Your task to perform on an android device: Go to privacy settings Image 0: 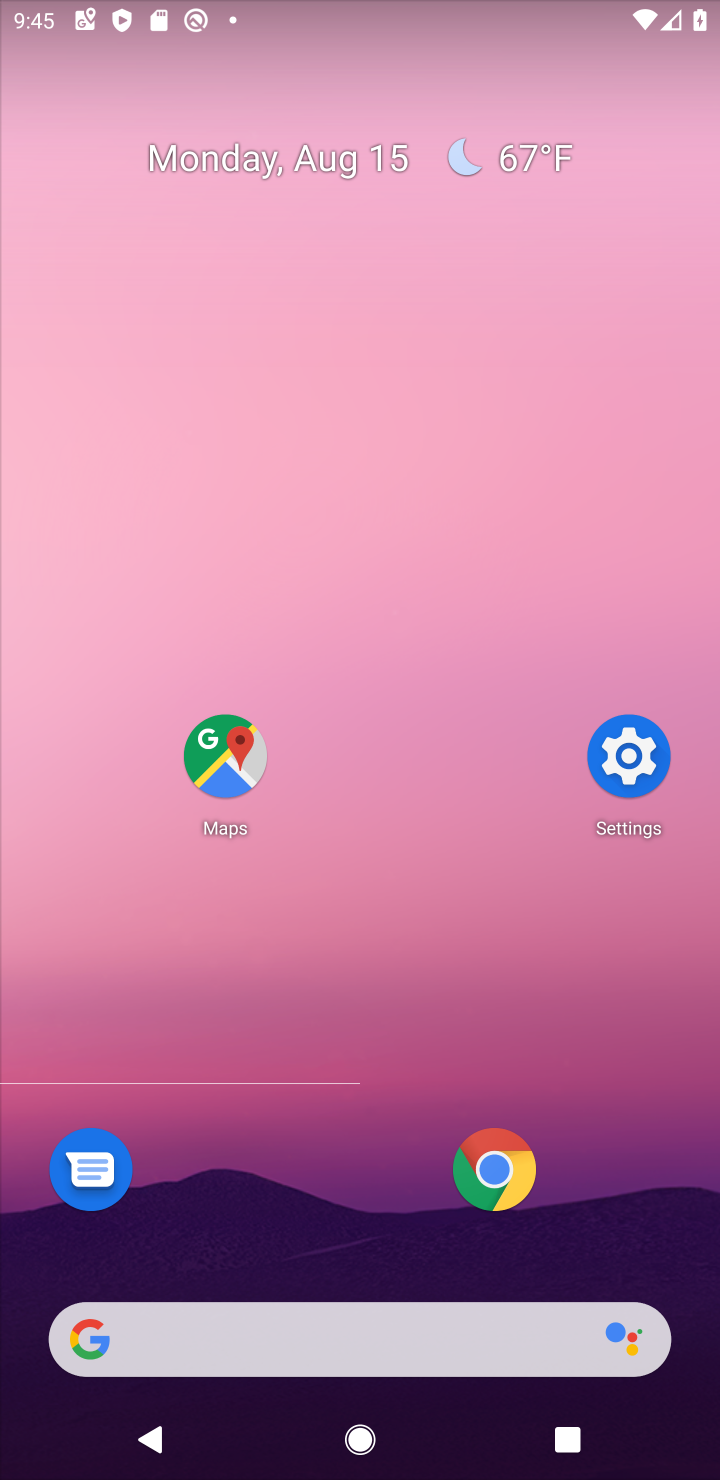
Step 0: press home button
Your task to perform on an android device: Go to privacy settings Image 1: 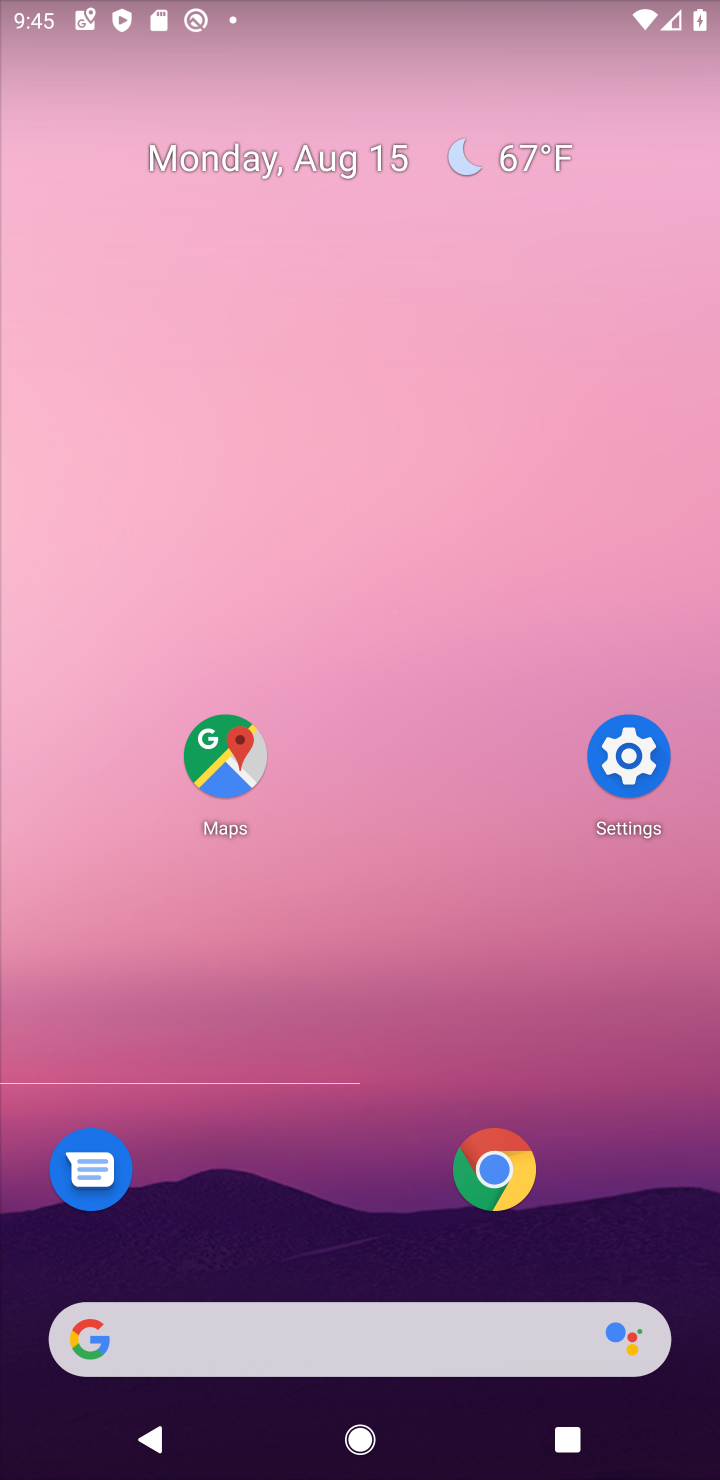
Step 1: click (633, 767)
Your task to perform on an android device: Go to privacy settings Image 2: 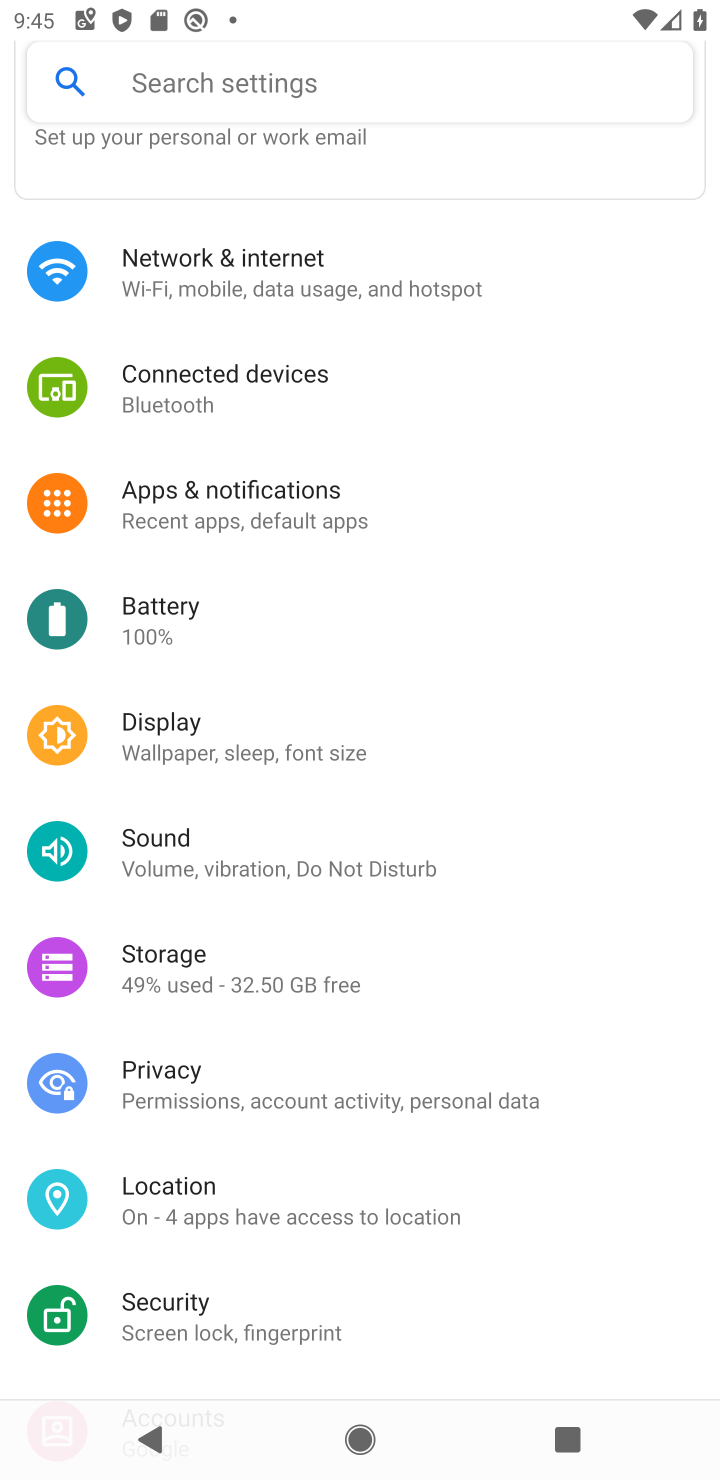
Step 2: click (220, 1074)
Your task to perform on an android device: Go to privacy settings Image 3: 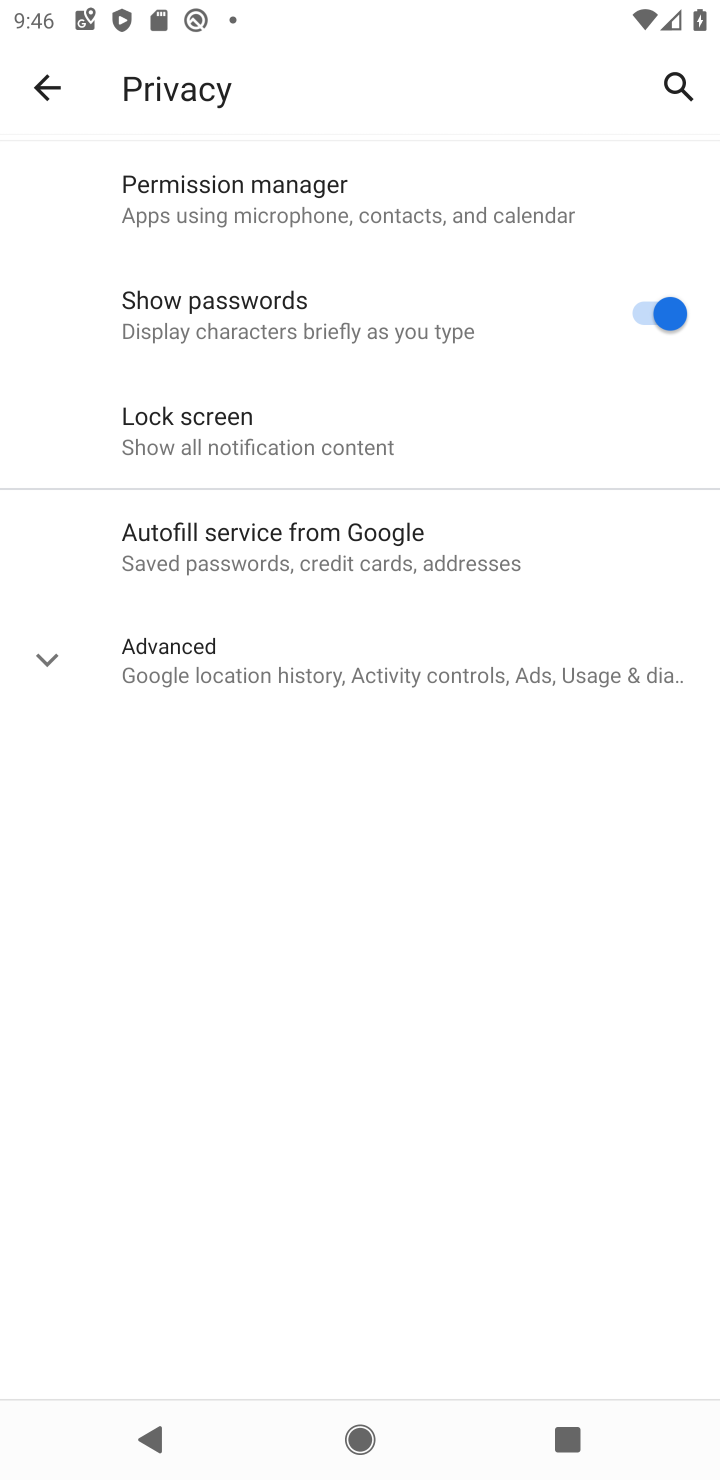
Step 3: task complete